Your task to perform on an android device: turn on wifi Image 0: 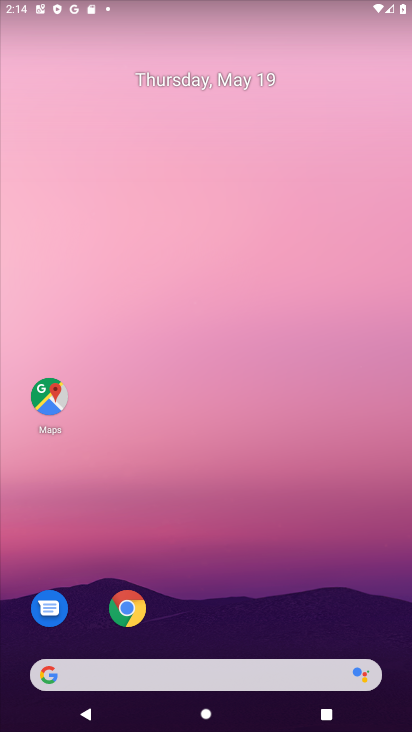
Step 0: drag from (231, 627) to (187, 193)
Your task to perform on an android device: turn on wifi Image 1: 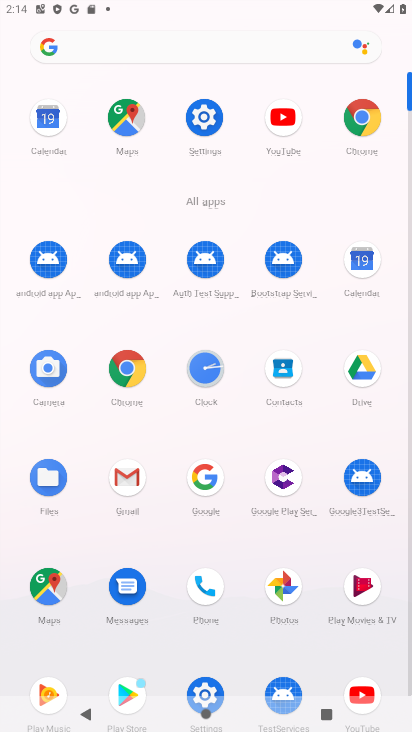
Step 1: click (210, 117)
Your task to perform on an android device: turn on wifi Image 2: 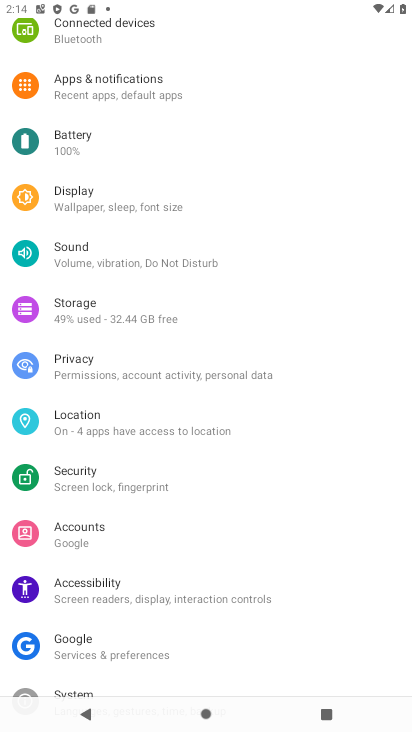
Step 2: drag from (199, 58) to (202, 498)
Your task to perform on an android device: turn on wifi Image 3: 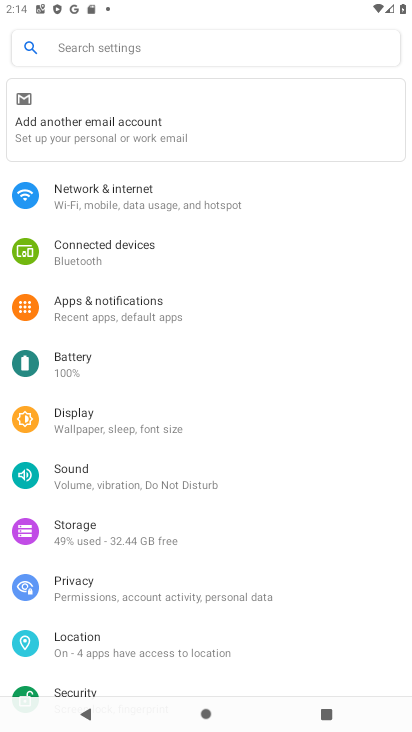
Step 3: click (133, 200)
Your task to perform on an android device: turn on wifi Image 4: 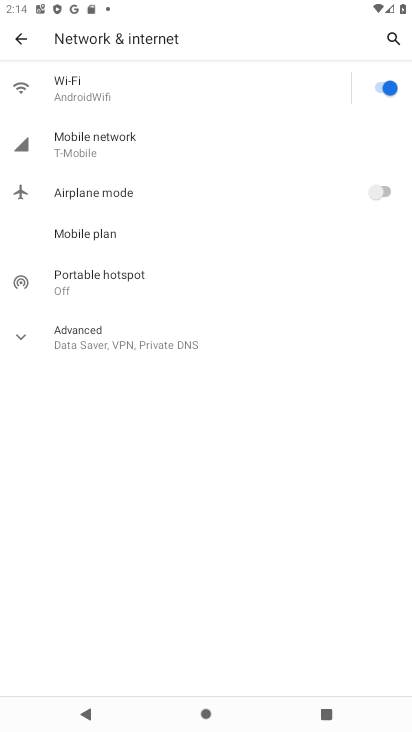
Step 4: task complete